Your task to perform on an android device: Open display settings Image 0: 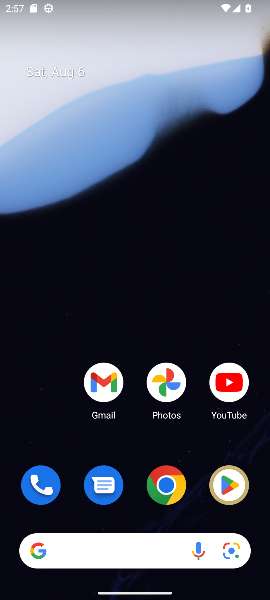
Step 0: press home button
Your task to perform on an android device: Open display settings Image 1: 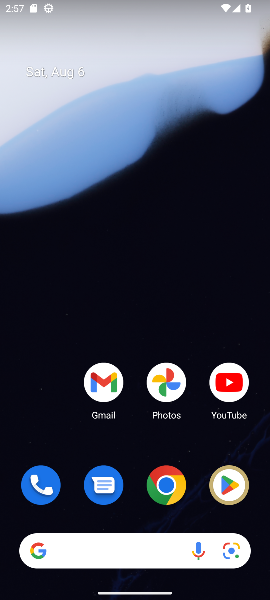
Step 1: drag from (139, 446) to (148, 52)
Your task to perform on an android device: Open display settings Image 2: 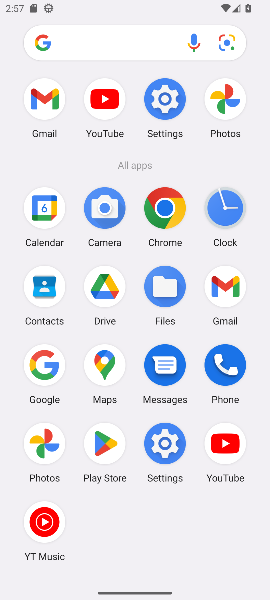
Step 2: click (163, 96)
Your task to perform on an android device: Open display settings Image 3: 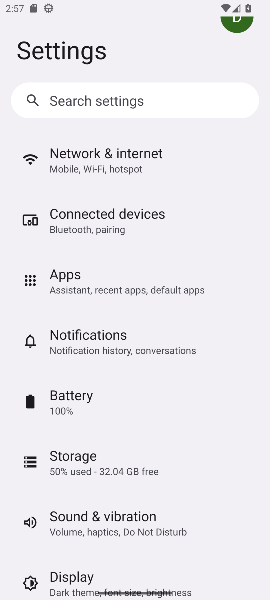
Step 3: click (101, 572)
Your task to perform on an android device: Open display settings Image 4: 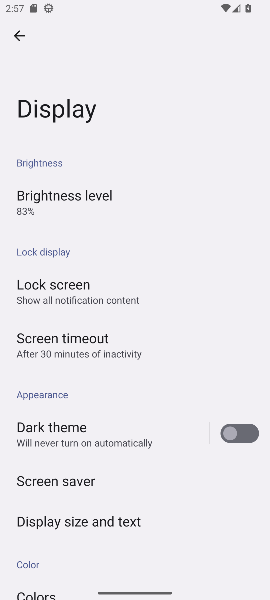
Step 4: task complete